Your task to perform on an android device: add a contact in the contacts app Image 0: 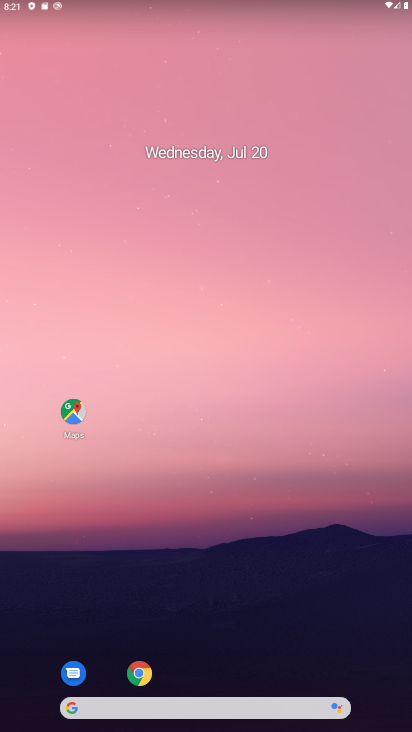
Step 0: drag from (198, 728) to (260, 69)
Your task to perform on an android device: add a contact in the contacts app Image 1: 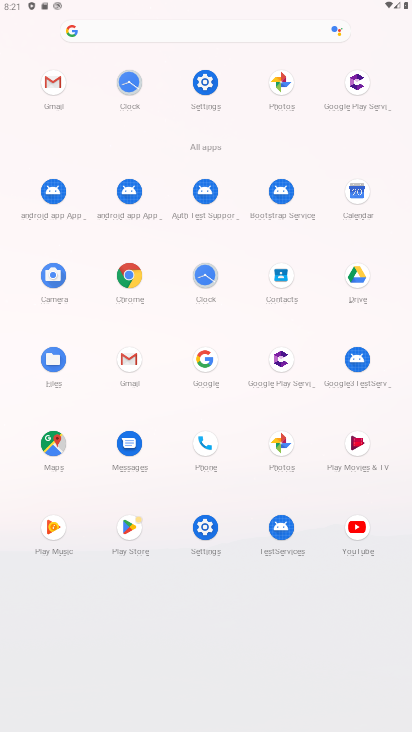
Step 1: click (280, 273)
Your task to perform on an android device: add a contact in the contacts app Image 2: 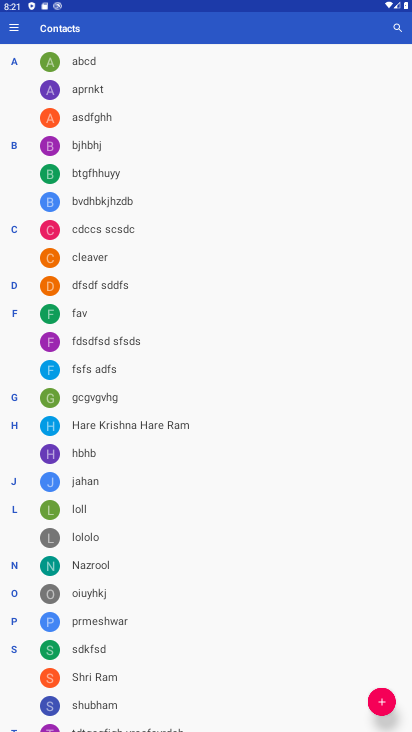
Step 2: click (382, 701)
Your task to perform on an android device: add a contact in the contacts app Image 3: 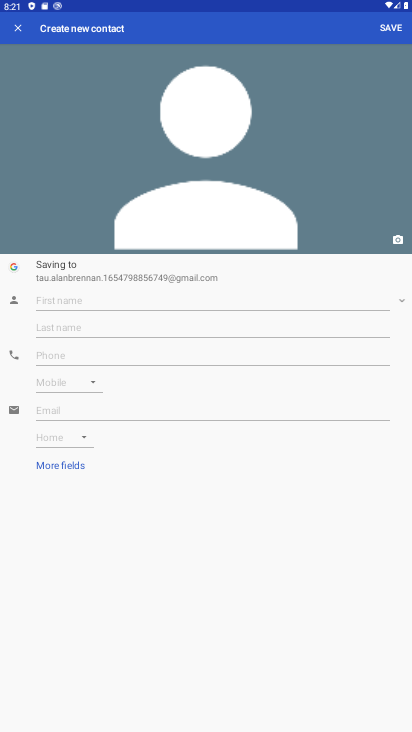
Step 3: click (162, 298)
Your task to perform on an android device: add a contact in the contacts app Image 4: 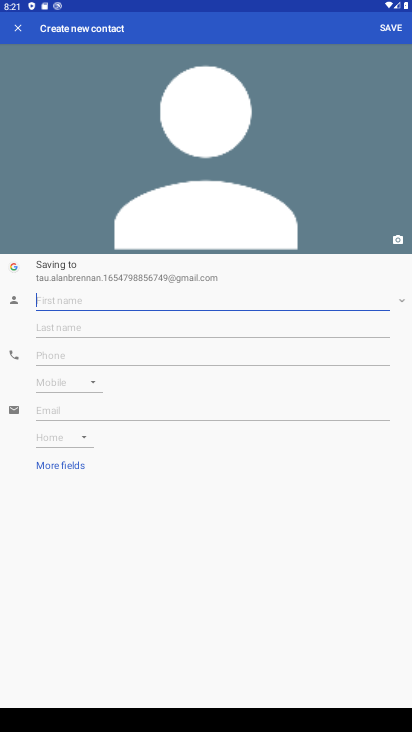
Step 4: type "unrached"
Your task to perform on an android device: add a contact in the contacts app Image 5: 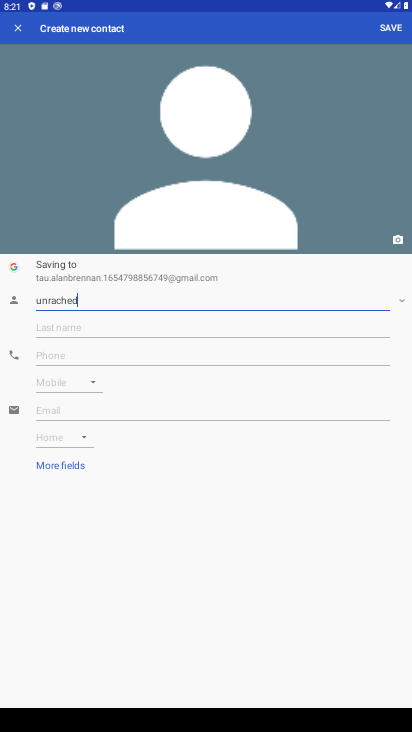
Step 5: click (130, 327)
Your task to perform on an android device: add a contact in the contacts app Image 6: 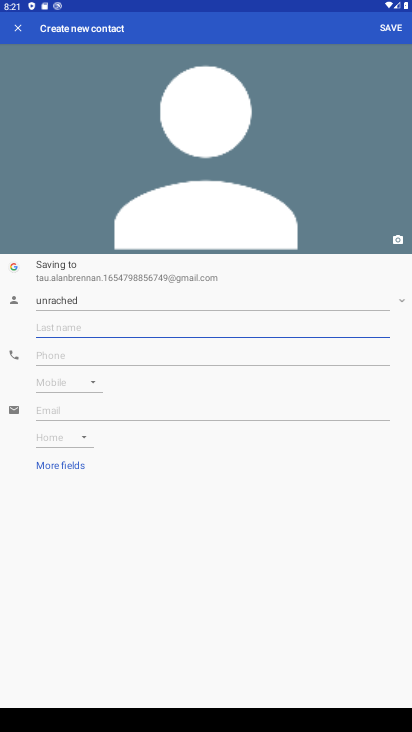
Step 6: click (93, 360)
Your task to perform on an android device: add a contact in the contacts app Image 7: 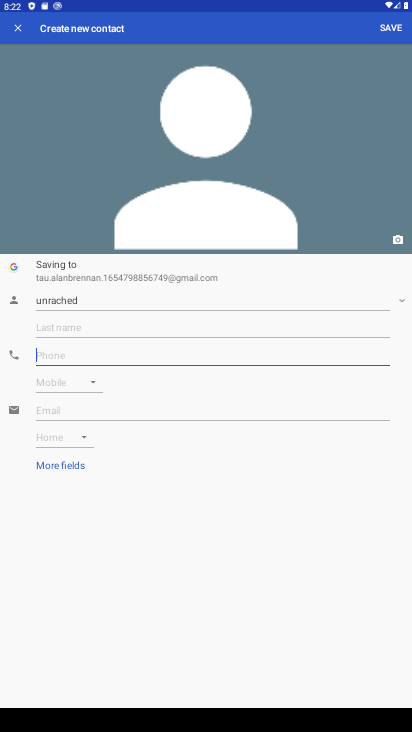
Step 7: type "8888"
Your task to perform on an android device: add a contact in the contacts app Image 8: 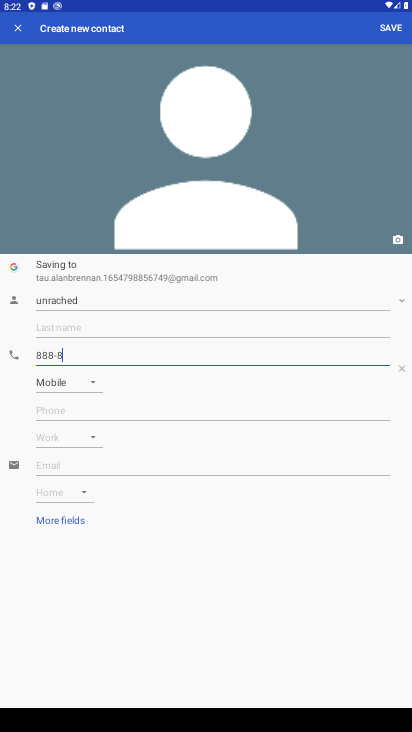
Step 8: click (393, 22)
Your task to perform on an android device: add a contact in the contacts app Image 9: 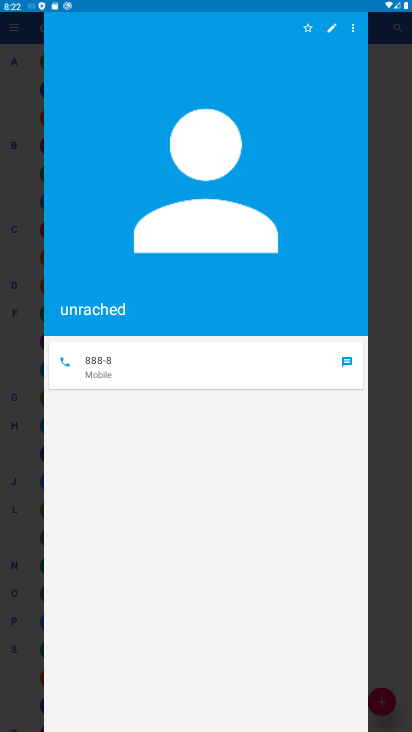
Step 9: task complete